Your task to perform on an android device: turn on the 24-hour format for clock Image 0: 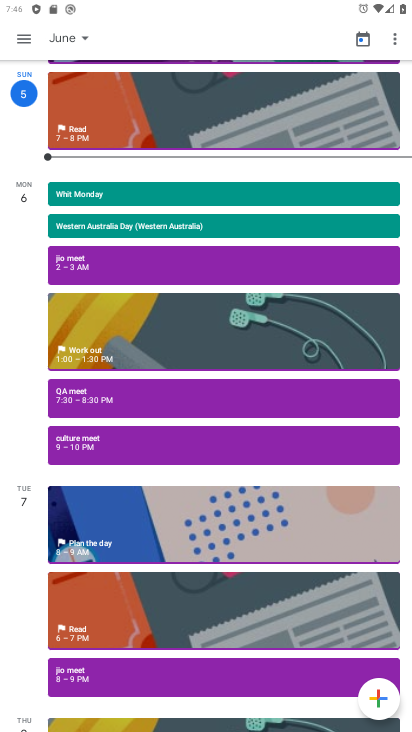
Step 0: press home button
Your task to perform on an android device: turn on the 24-hour format for clock Image 1: 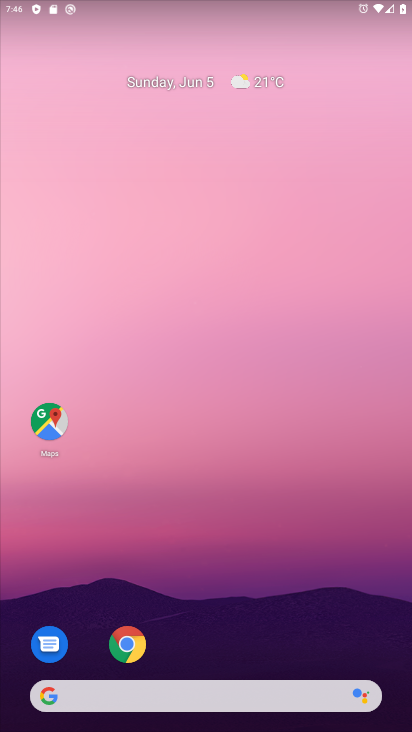
Step 1: drag from (70, 494) to (286, 71)
Your task to perform on an android device: turn on the 24-hour format for clock Image 2: 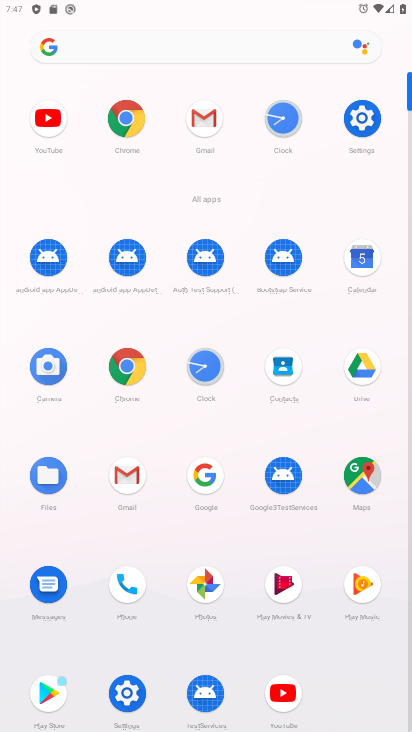
Step 2: click (278, 121)
Your task to perform on an android device: turn on the 24-hour format for clock Image 3: 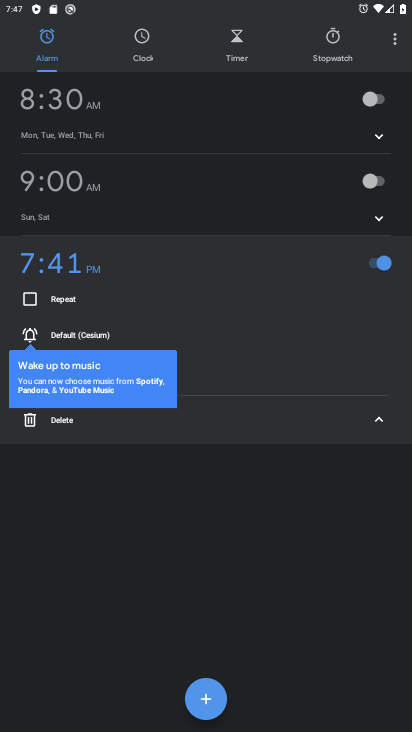
Step 3: click (391, 45)
Your task to perform on an android device: turn on the 24-hour format for clock Image 4: 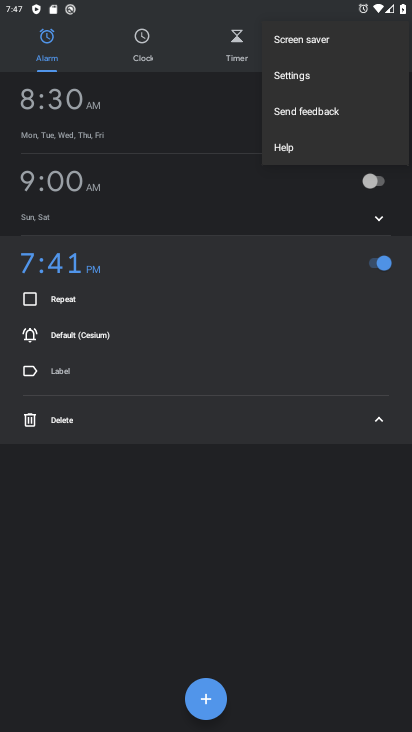
Step 4: click (293, 81)
Your task to perform on an android device: turn on the 24-hour format for clock Image 5: 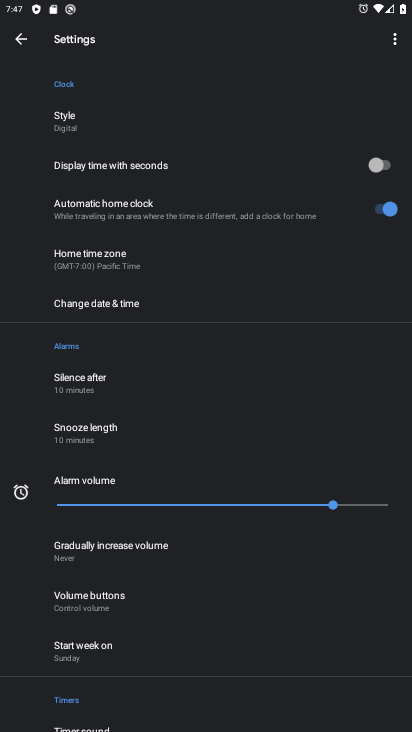
Step 5: click (116, 305)
Your task to perform on an android device: turn on the 24-hour format for clock Image 6: 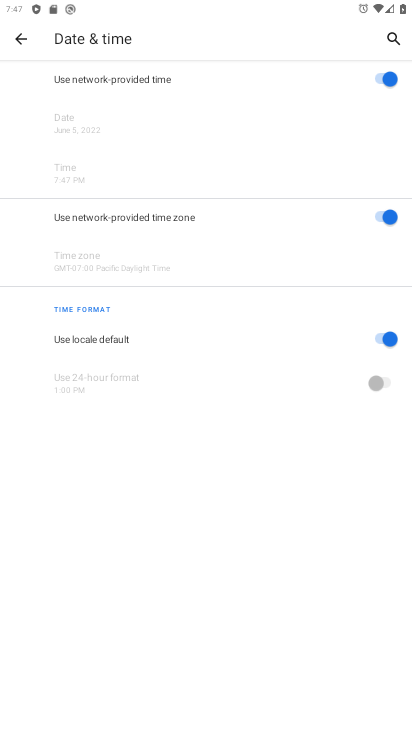
Step 6: click (390, 342)
Your task to perform on an android device: turn on the 24-hour format for clock Image 7: 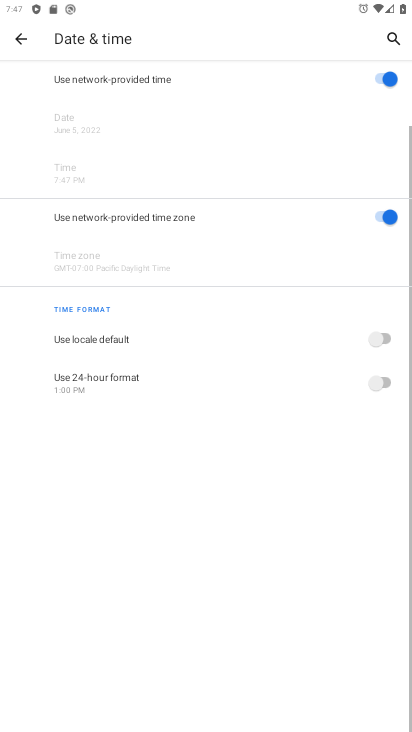
Step 7: click (372, 390)
Your task to perform on an android device: turn on the 24-hour format for clock Image 8: 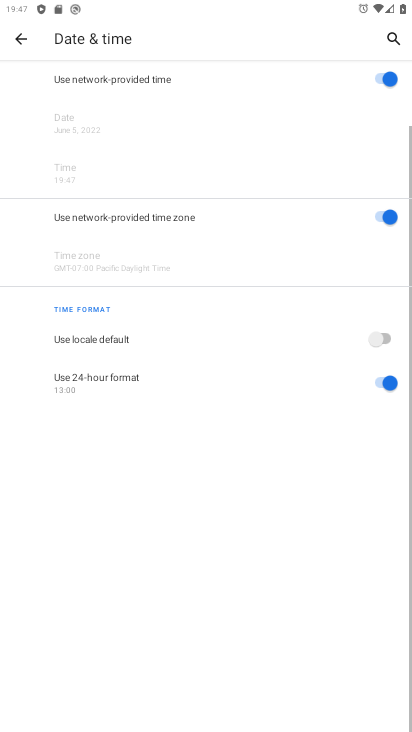
Step 8: task complete